Your task to perform on an android device: see creations saved in the google photos Image 0: 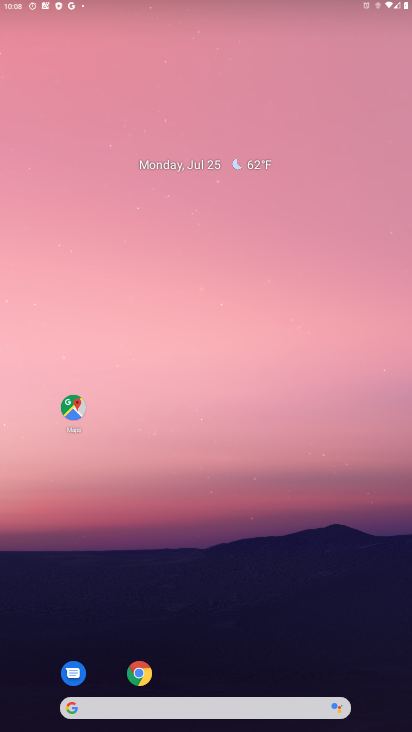
Step 0: drag from (179, 557) to (211, 264)
Your task to perform on an android device: see creations saved in the google photos Image 1: 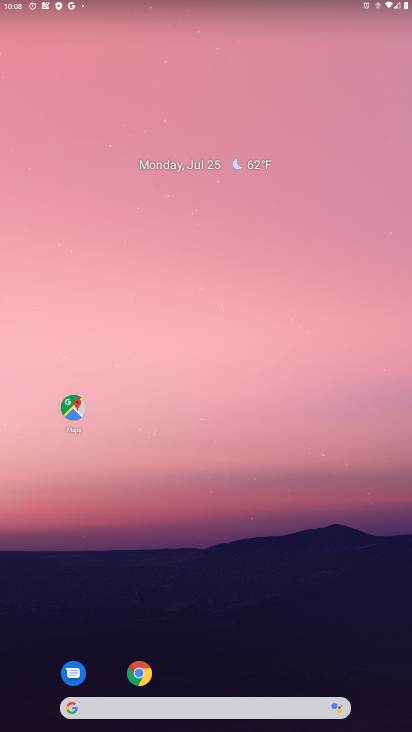
Step 1: drag from (211, 600) to (305, 138)
Your task to perform on an android device: see creations saved in the google photos Image 2: 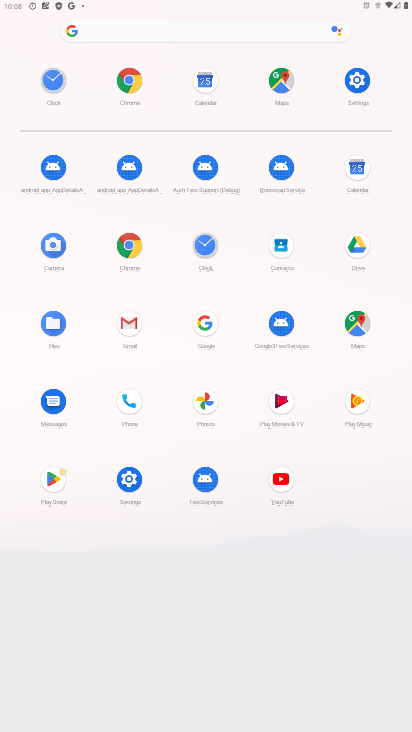
Step 2: click (207, 407)
Your task to perform on an android device: see creations saved in the google photos Image 3: 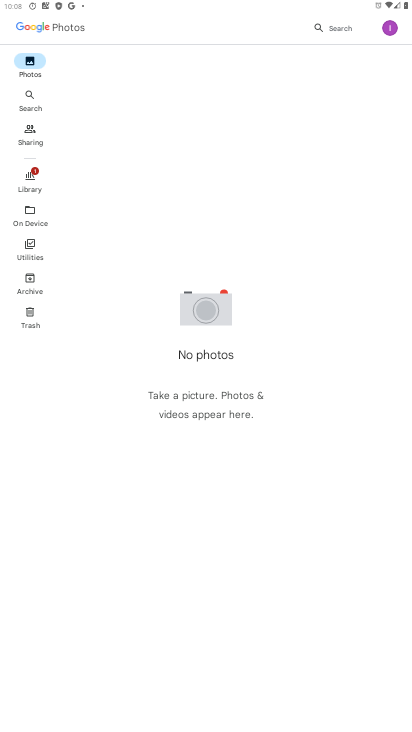
Step 3: click (330, 29)
Your task to perform on an android device: see creations saved in the google photos Image 4: 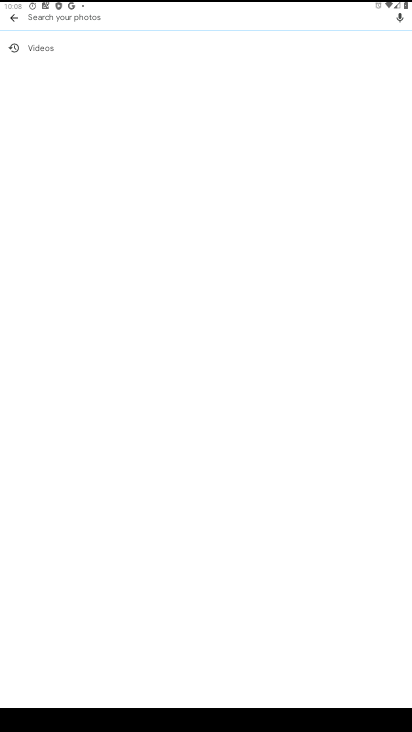
Step 4: click (19, 23)
Your task to perform on an android device: see creations saved in the google photos Image 5: 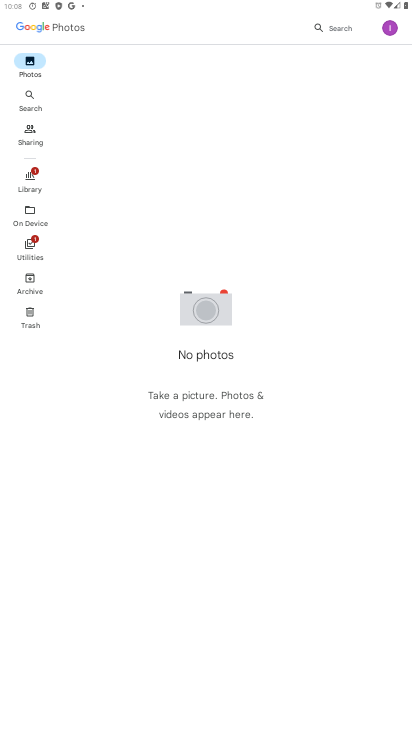
Step 5: click (23, 283)
Your task to perform on an android device: see creations saved in the google photos Image 6: 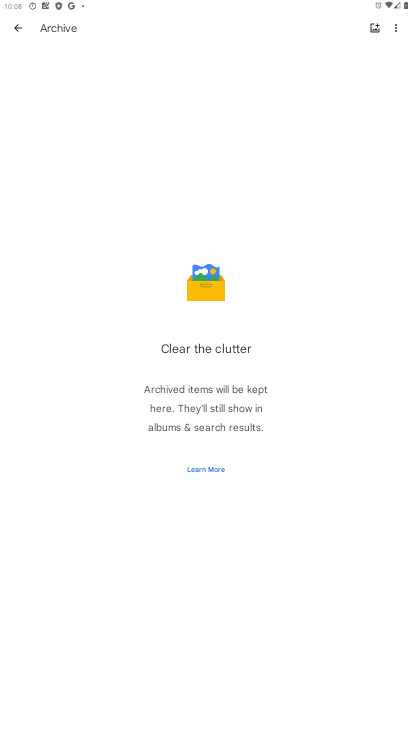
Step 6: click (16, 26)
Your task to perform on an android device: see creations saved in the google photos Image 7: 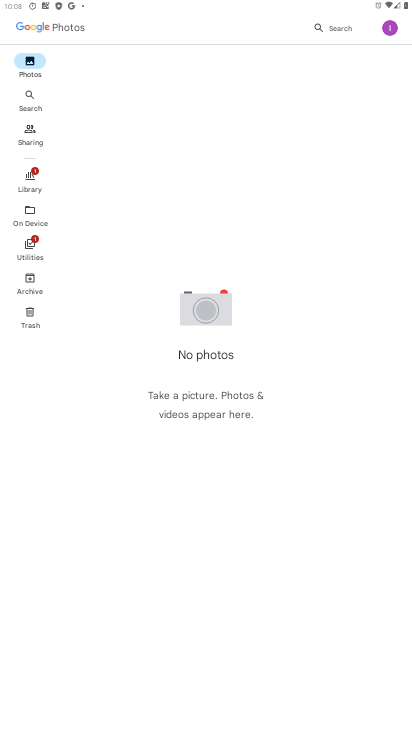
Step 7: click (31, 239)
Your task to perform on an android device: see creations saved in the google photos Image 8: 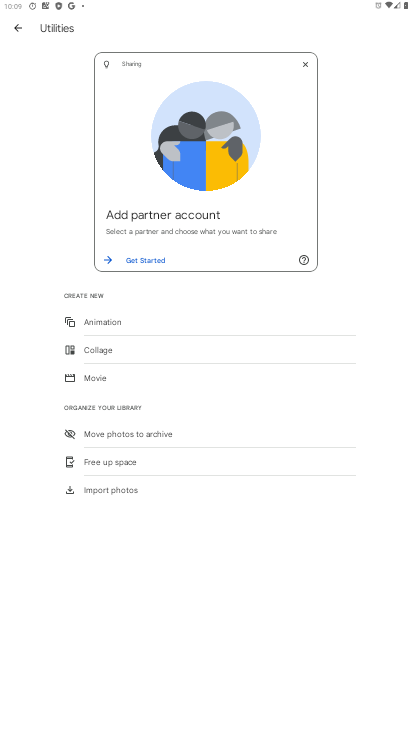
Step 8: click (19, 21)
Your task to perform on an android device: see creations saved in the google photos Image 9: 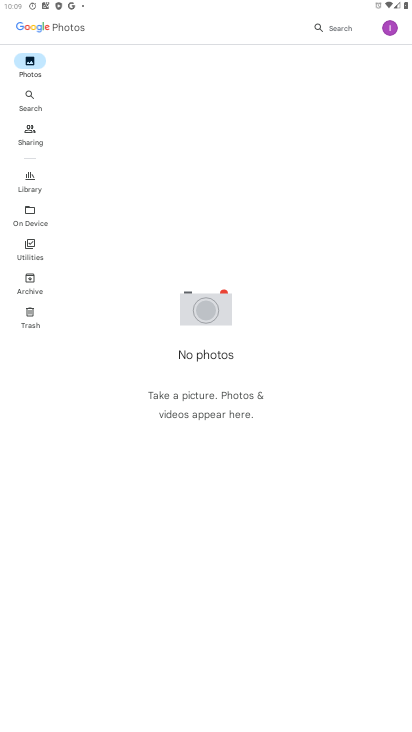
Step 9: click (26, 124)
Your task to perform on an android device: see creations saved in the google photos Image 10: 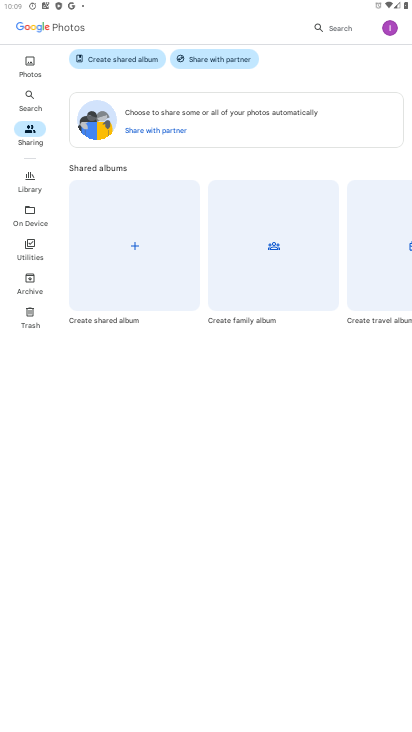
Step 10: click (37, 188)
Your task to perform on an android device: see creations saved in the google photos Image 11: 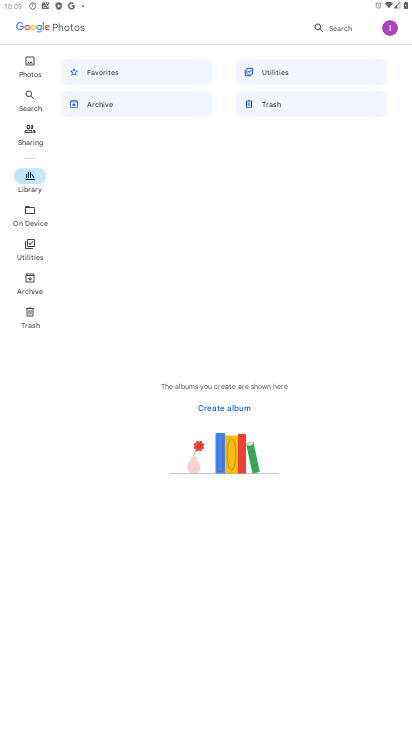
Step 11: click (12, 212)
Your task to perform on an android device: see creations saved in the google photos Image 12: 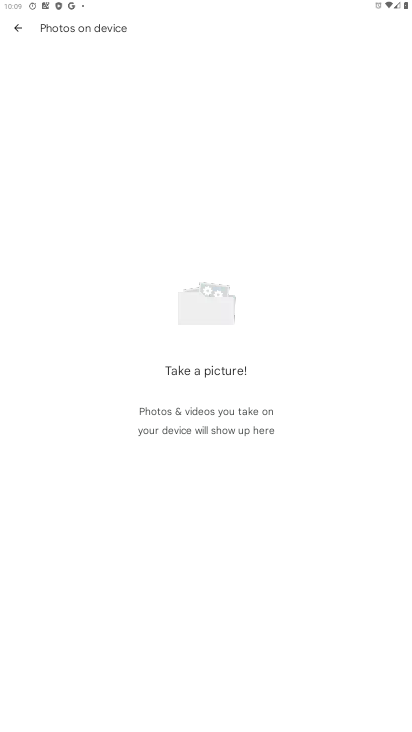
Step 12: click (17, 29)
Your task to perform on an android device: see creations saved in the google photos Image 13: 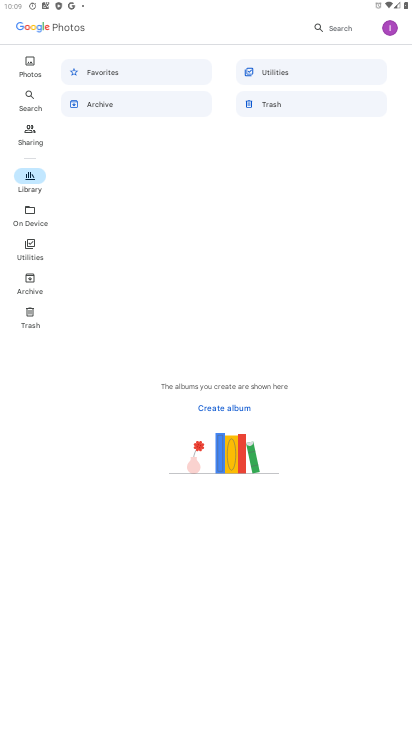
Step 13: click (29, 283)
Your task to perform on an android device: see creations saved in the google photos Image 14: 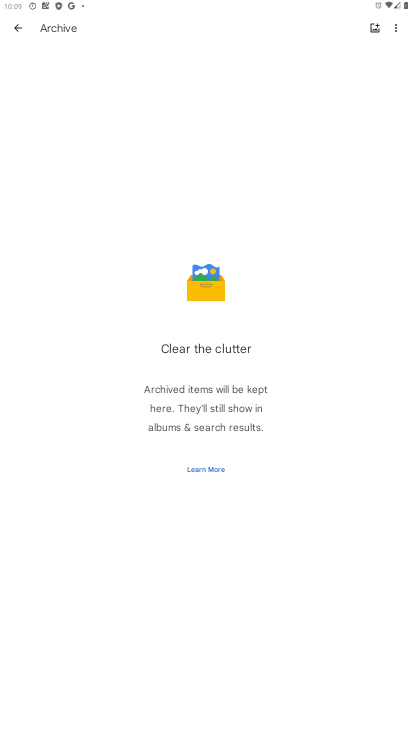
Step 14: click (21, 9)
Your task to perform on an android device: see creations saved in the google photos Image 15: 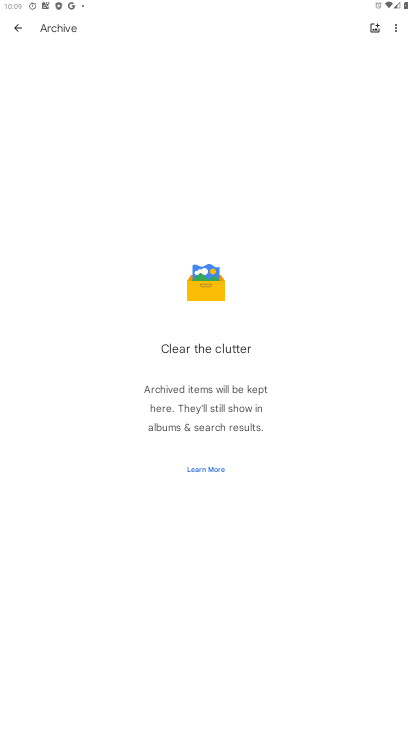
Step 15: click (11, 31)
Your task to perform on an android device: see creations saved in the google photos Image 16: 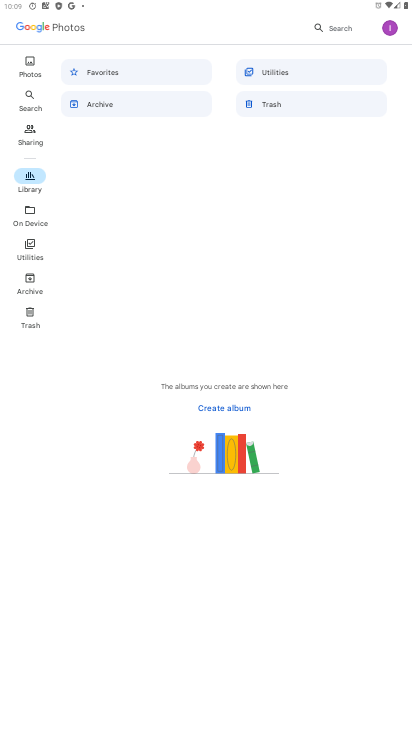
Step 16: click (33, 253)
Your task to perform on an android device: see creations saved in the google photos Image 17: 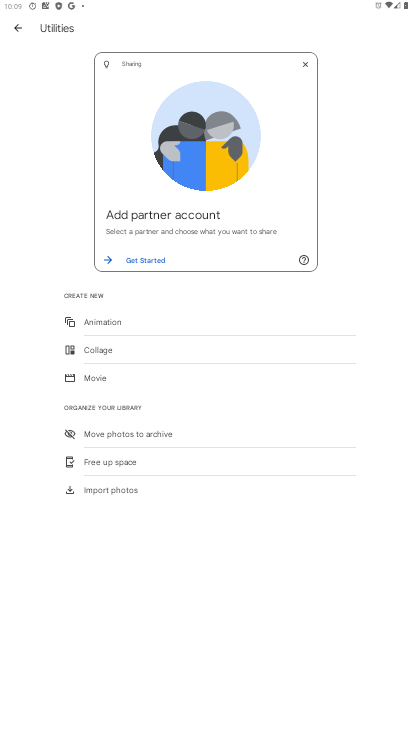
Step 17: task complete